Your task to perform on an android device: Go to battery settings Image 0: 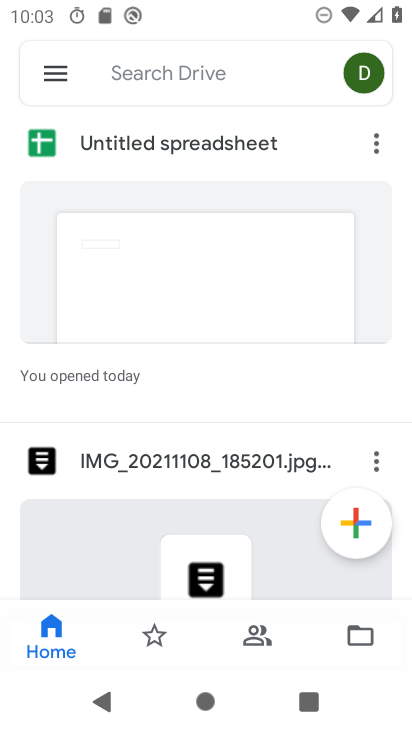
Step 0: press home button
Your task to perform on an android device: Go to battery settings Image 1: 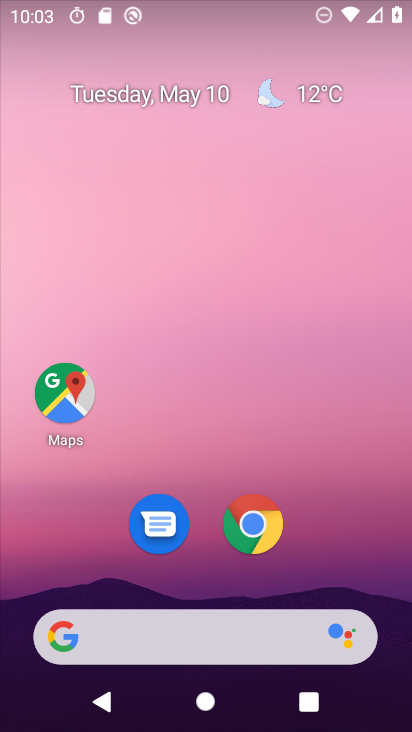
Step 1: drag from (216, 403) to (240, 32)
Your task to perform on an android device: Go to battery settings Image 2: 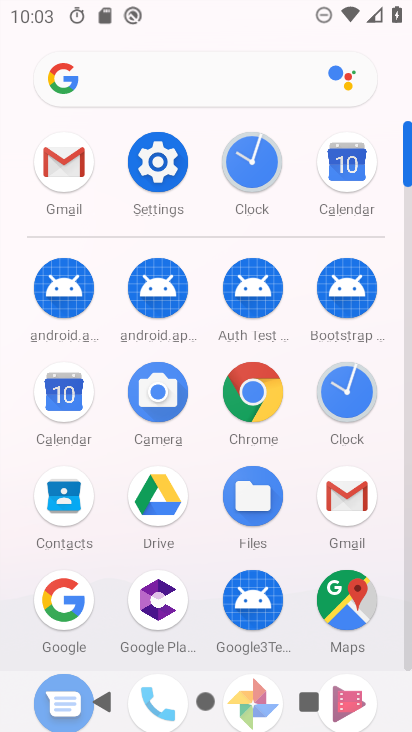
Step 2: click (173, 155)
Your task to perform on an android device: Go to battery settings Image 3: 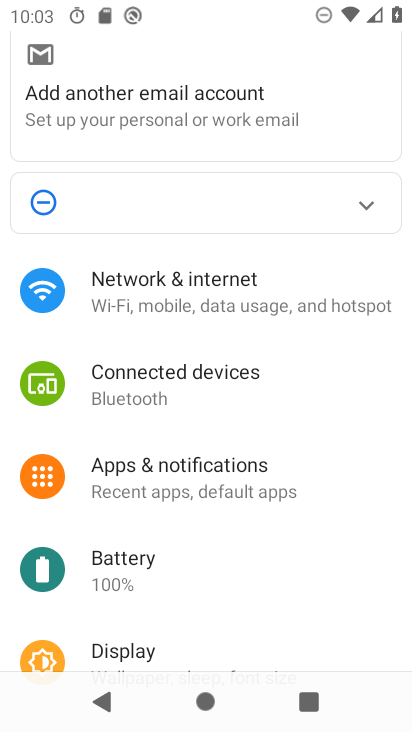
Step 3: click (154, 574)
Your task to perform on an android device: Go to battery settings Image 4: 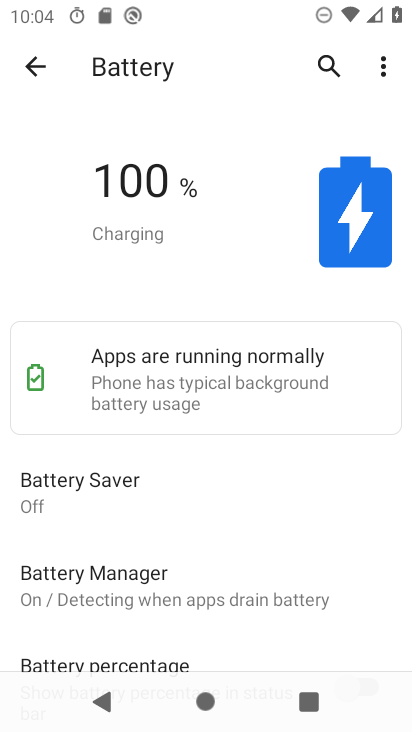
Step 4: task complete